Your task to perform on an android device: turn off data saver in the chrome app Image 0: 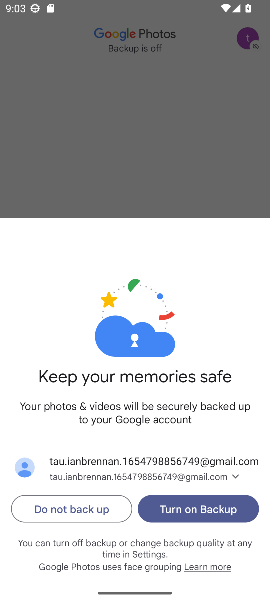
Step 0: press home button
Your task to perform on an android device: turn off data saver in the chrome app Image 1: 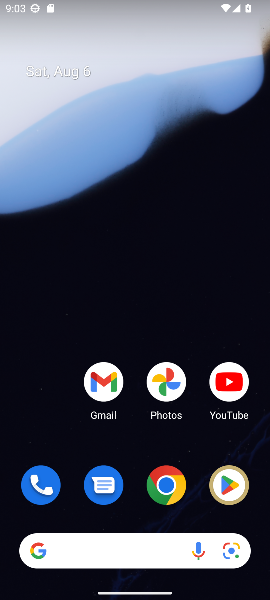
Step 1: drag from (136, 441) to (161, 46)
Your task to perform on an android device: turn off data saver in the chrome app Image 2: 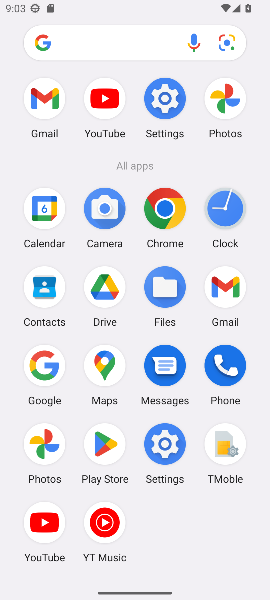
Step 2: click (163, 208)
Your task to perform on an android device: turn off data saver in the chrome app Image 3: 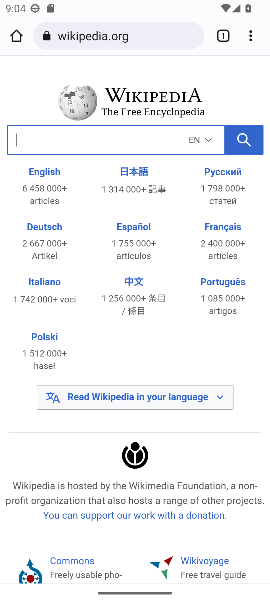
Step 3: drag from (249, 32) to (140, 456)
Your task to perform on an android device: turn off data saver in the chrome app Image 4: 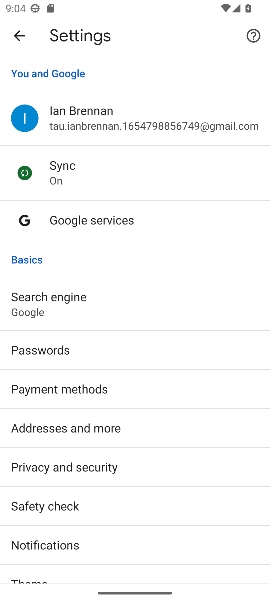
Step 4: drag from (147, 480) to (157, 108)
Your task to perform on an android device: turn off data saver in the chrome app Image 5: 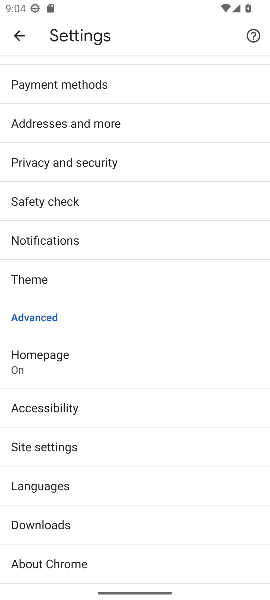
Step 5: drag from (129, 495) to (157, 270)
Your task to perform on an android device: turn off data saver in the chrome app Image 6: 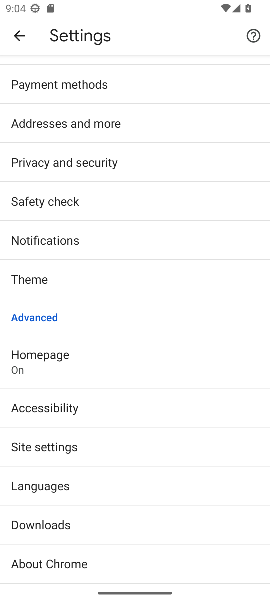
Step 6: drag from (229, 150) to (239, 118)
Your task to perform on an android device: turn off data saver in the chrome app Image 7: 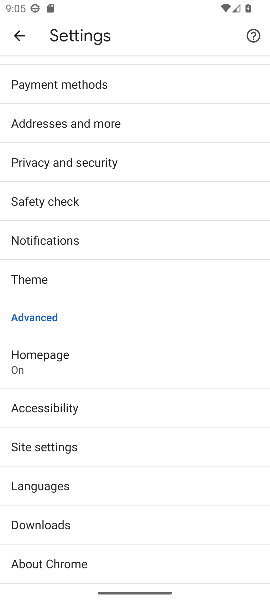
Step 7: click (56, 454)
Your task to perform on an android device: turn off data saver in the chrome app Image 8: 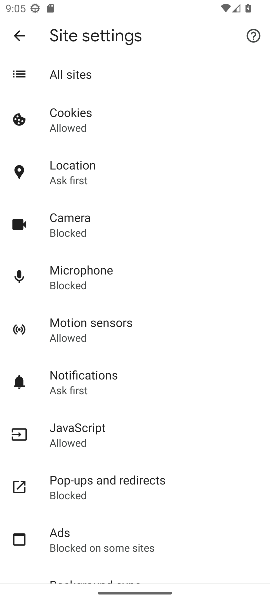
Step 8: task complete